Your task to perform on an android device: What's the weather? Image 0: 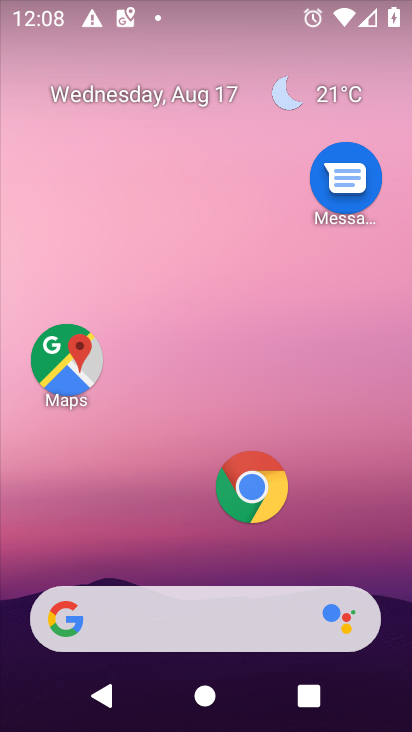
Step 0: click (159, 620)
Your task to perform on an android device: What's the weather? Image 1: 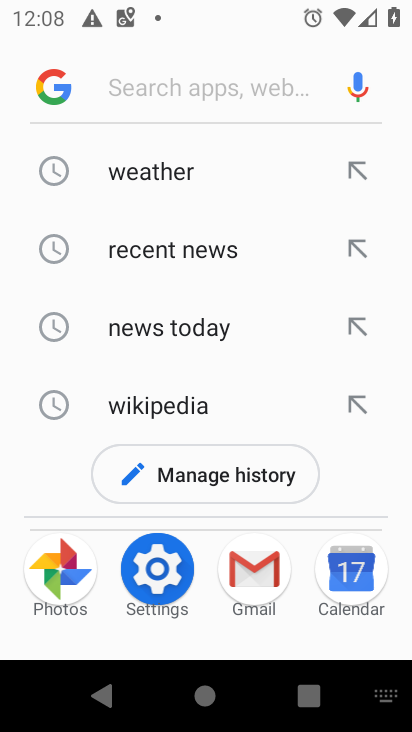
Step 1: click (160, 141)
Your task to perform on an android device: What's the weather? Image 2: 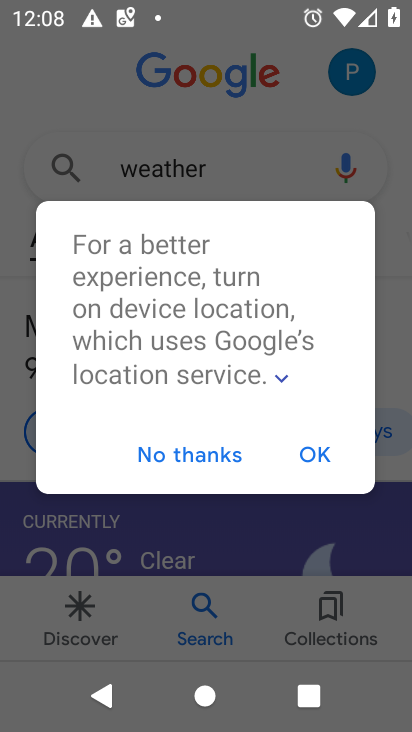
Step 2: click (304, 458)
Your task to perform on an android device: What's the weather? Image 3: 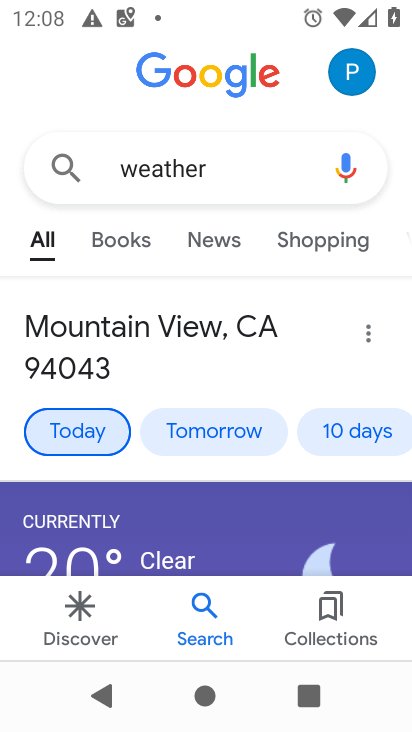
Step 3: task complete